Your task to perform on an android device: Open Wikipedia Image 0: 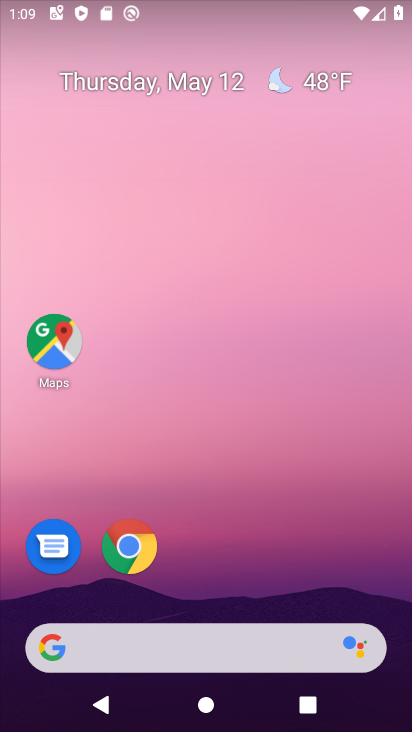
Step 0: click (130, 550)
Your task to perform on an android device: Open Wikipedia Image 1: 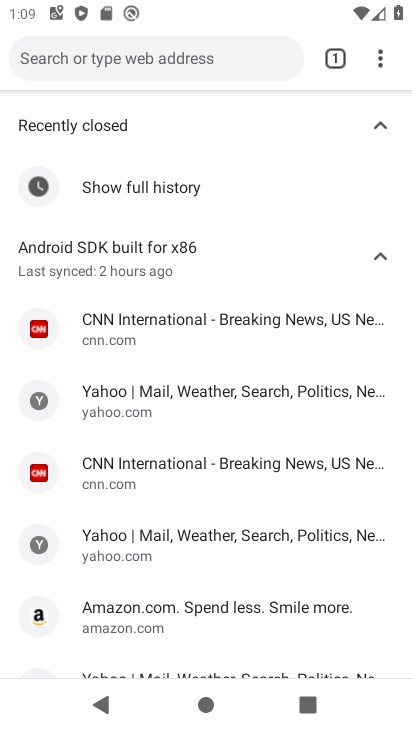
Step 1: drag from (377, 60) to (297, 117)
Your task to perform on an android device: Open Wikipedia Image 2: 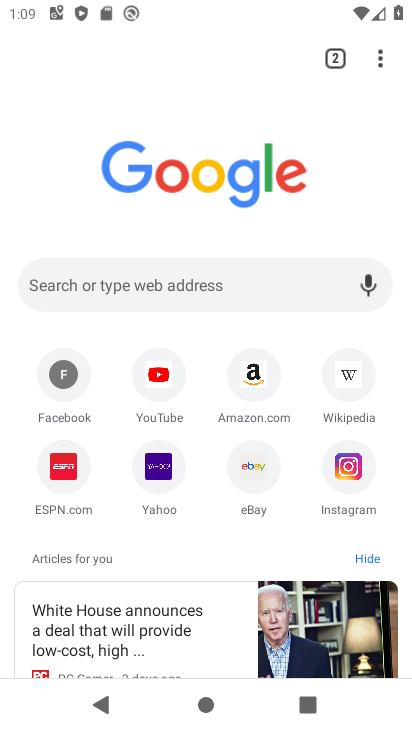
Step 2: click (356, 379)
Your task to perform on an android device: Open Wikipedia Image 3: 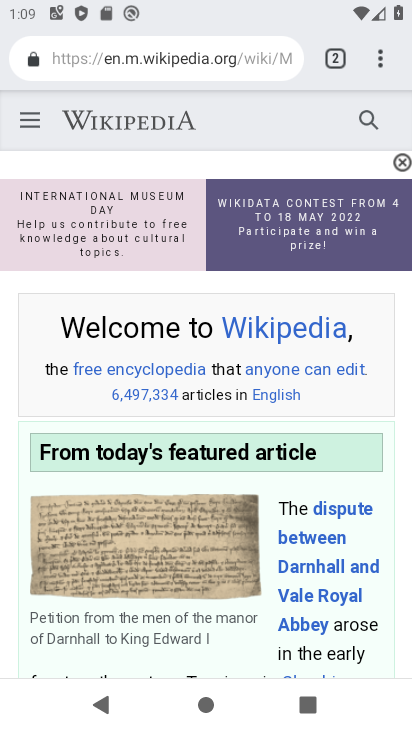
Step 3: task complete